Your task to perform on an android device: toggle airplane mode Image 0: 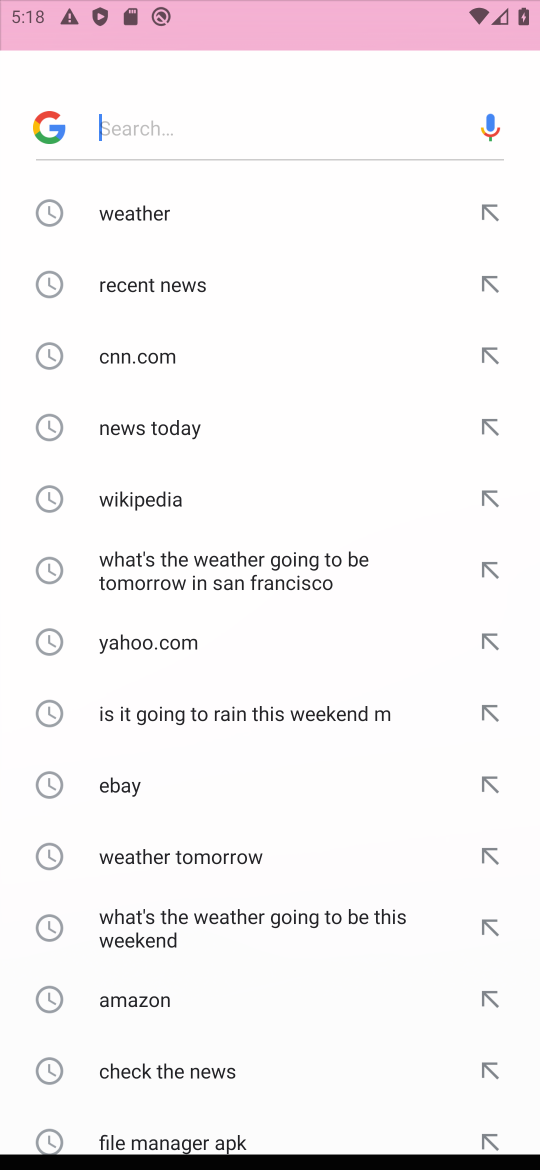
Step 0: click (505, 74)
Your task to perform on an android device: toggle airplane mode Image 1: 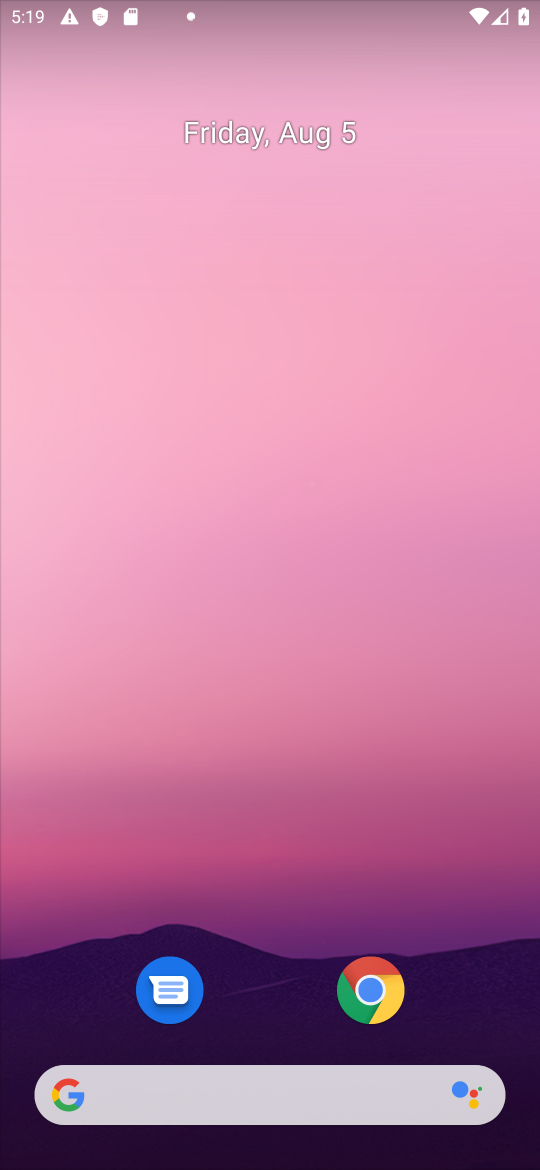
Step 1: click (505, 74)
Your task to perform on an android device: toggle airplane mode Image 2: 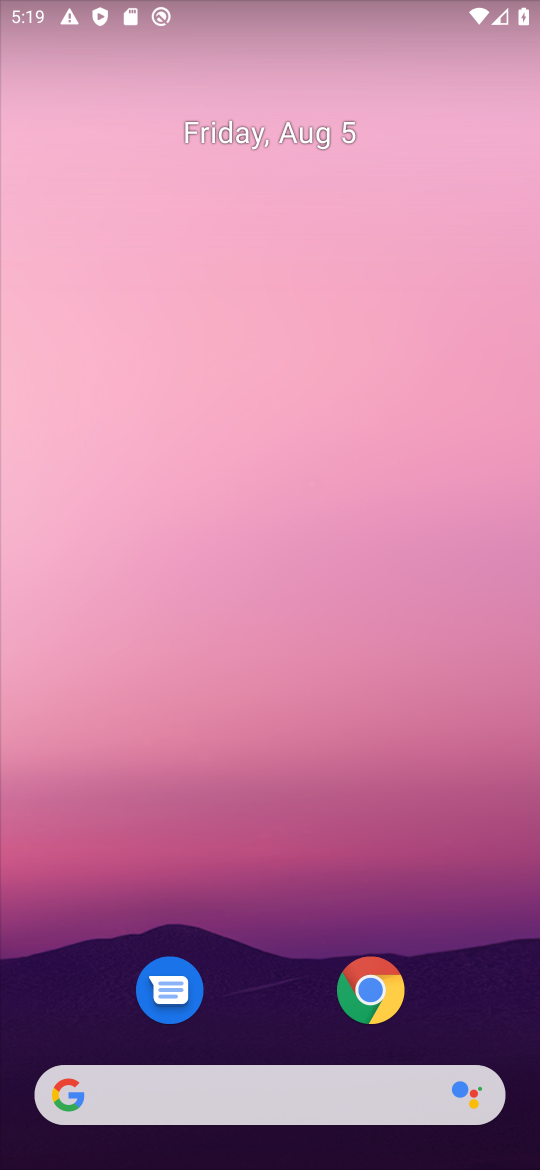
Step 2: click (383, 987)
Your task to perform on an android device: toggle airplane mode Image 3: 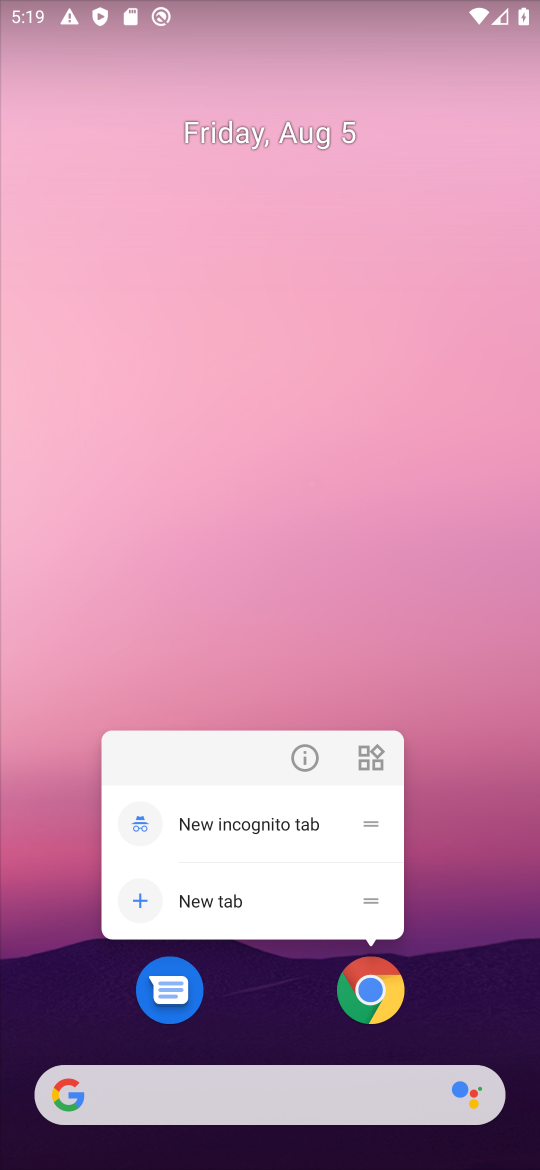
Step 3: drag from (254, 1058) to (205, 375)
Your task to perform on an android device: toggle airplane mode Image 4: 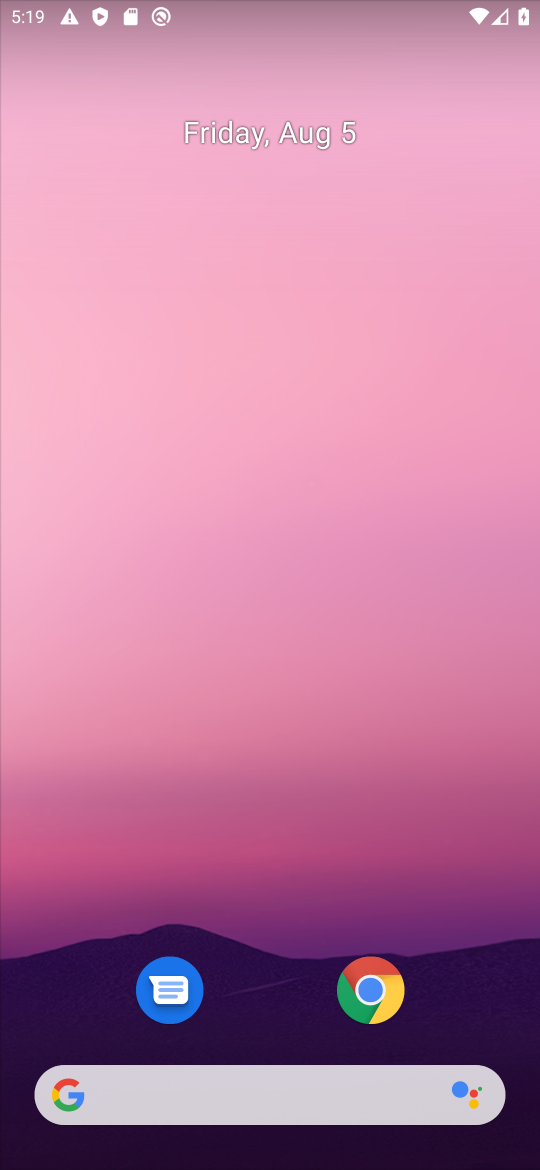
Step 4: drag from (230, 1063) to (226, 289)
Your task to perform on an android device: toggle airplane mode Image 5: 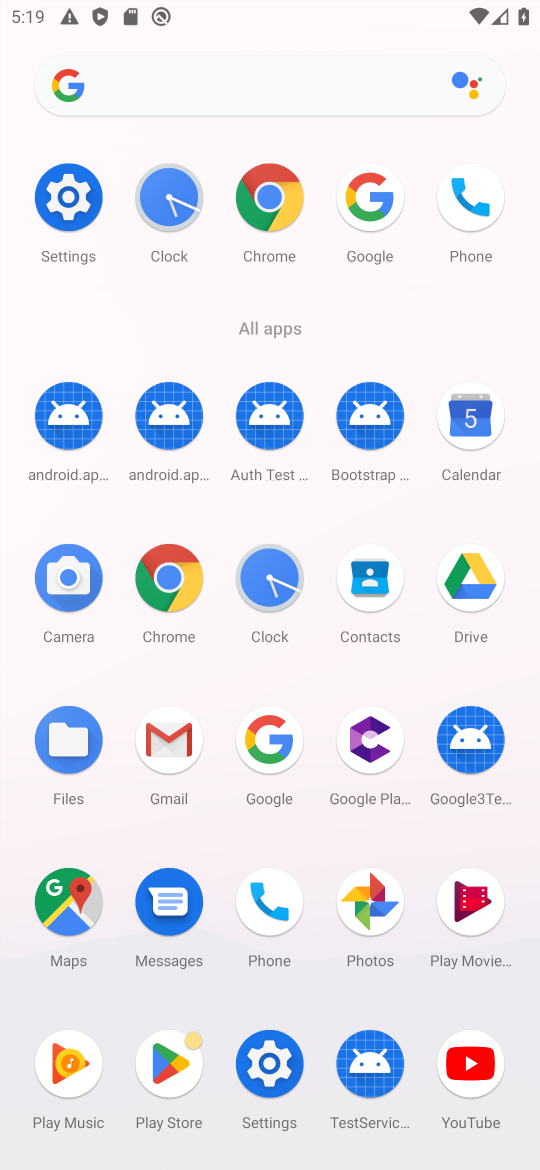
Step 5: click (244, 1076)
Your task to perform on an android device: toggle airplane mode Image 6: 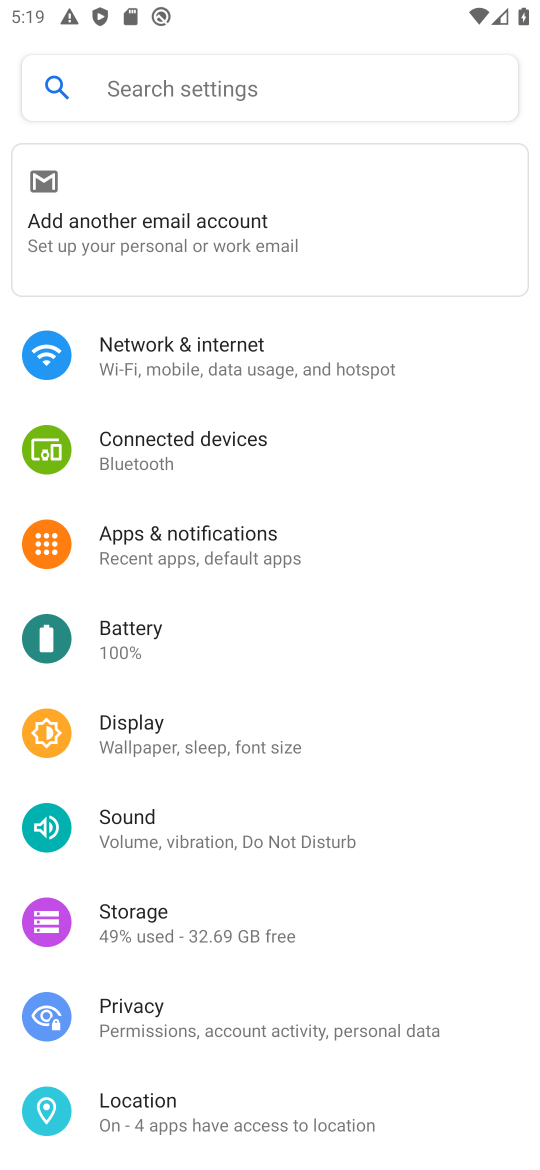
Step 6: click (167, 362)
Your task to perform on an android device: toggle airplane mode Image 7: 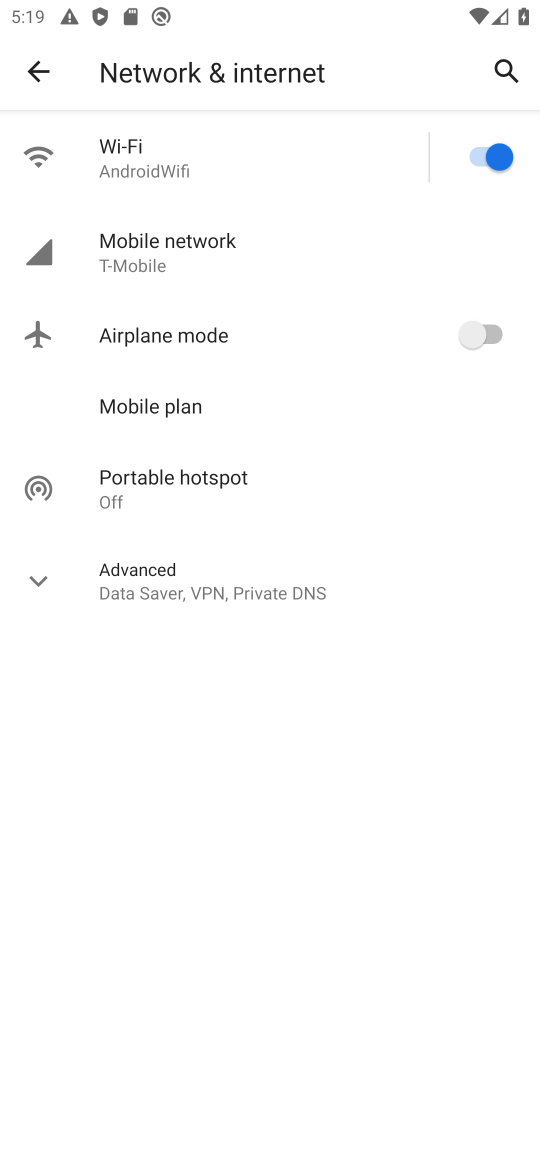
Step 7: click (157, 364)
Your task to perform on an android device: toggle airplane mode Image 8: 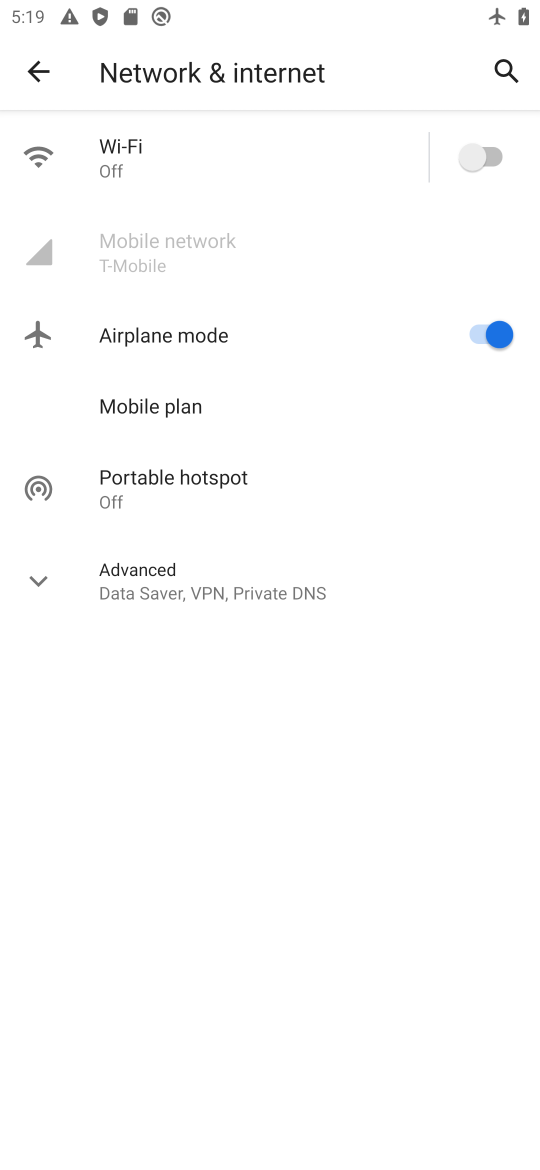
Step 8: click (484, 333)
Your task to perform on an android device: toggle airplane mode Image 9: 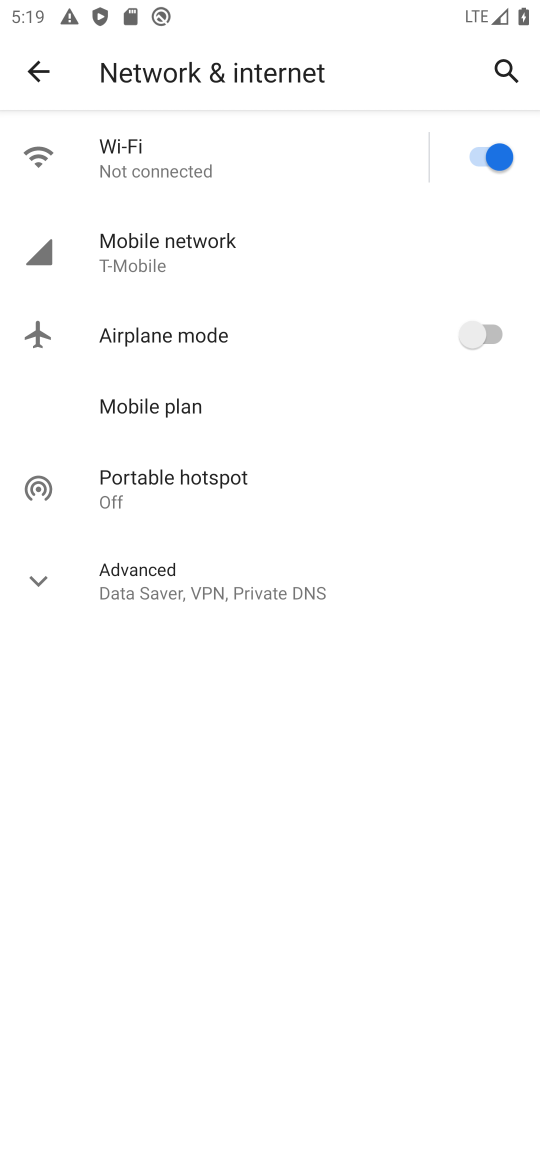
Step 9: task complete